Your task to perform on an android device: find snoozed emails in the gmail app Image 0: 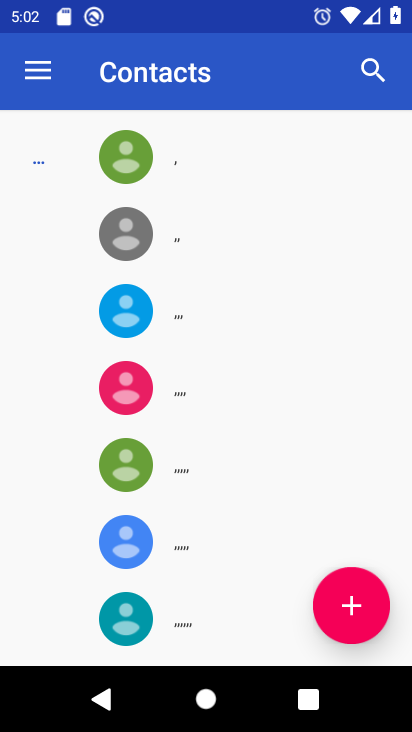
Step 0: press home button
Your task to perform on an android device: find snoozed emails in the gmail app Image 1: 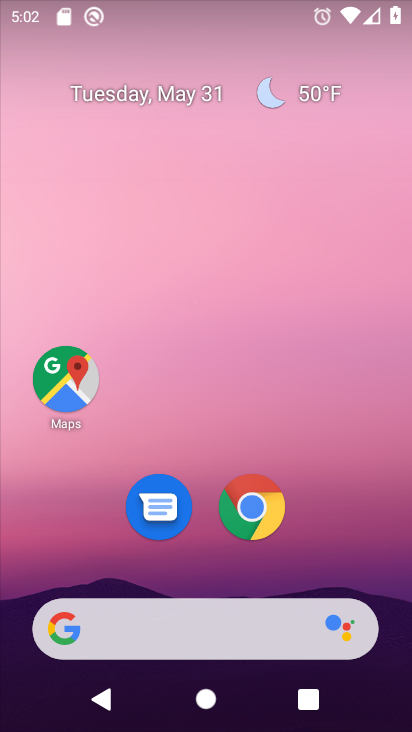
Step 1: drag from (320, 495) to (245, 45)
Your task to perform on an android device: find snoozed emails in the gmail app Image 2: 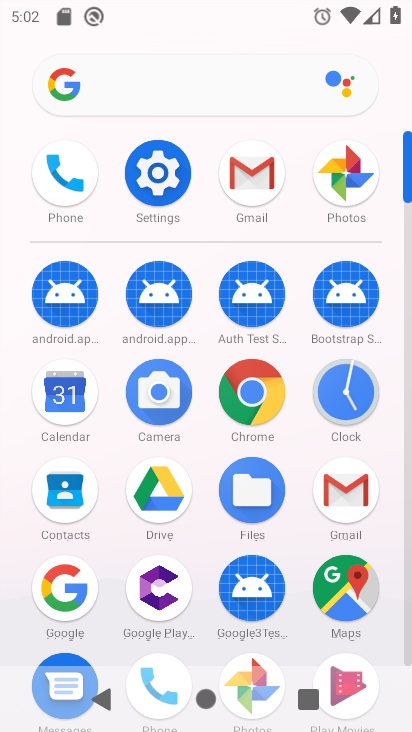
Step 2: click (249, 175)
Your task to perform on an android device: find snoozed emails in the gmail app Image 3: 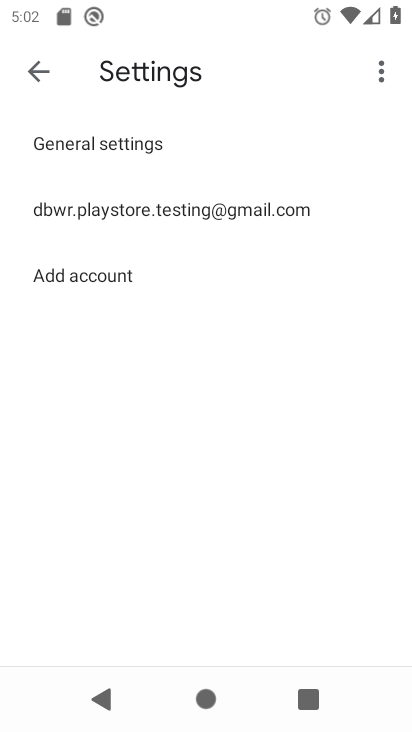
Step 3: click (36, 71)
Your task to perform on an android device: find snoozed emails in the gmail app Image 4: 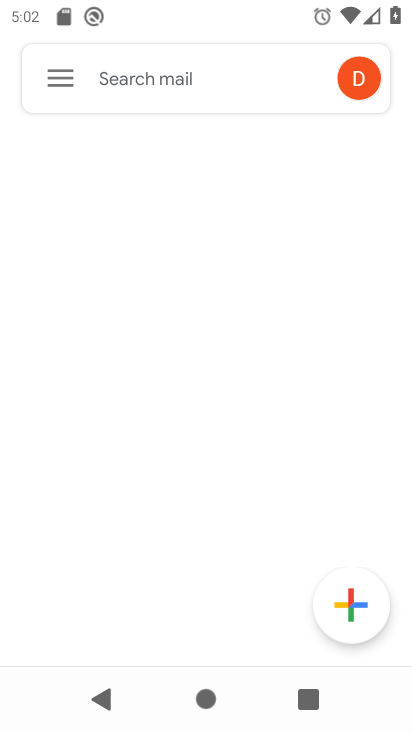
Step 4: click (57, 70)
Your task to perform on an android device: find snoozed emails in the gmail app Image 5: 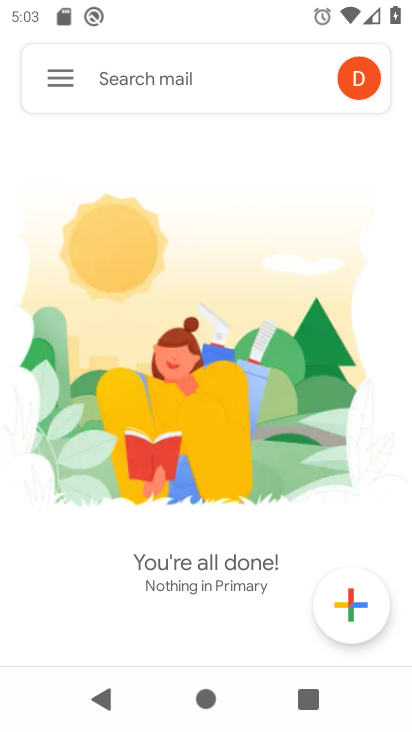
Step 5: click (51, 64)
Your task to perform on an android device: find snoozed emails in the gmail app Image 6: 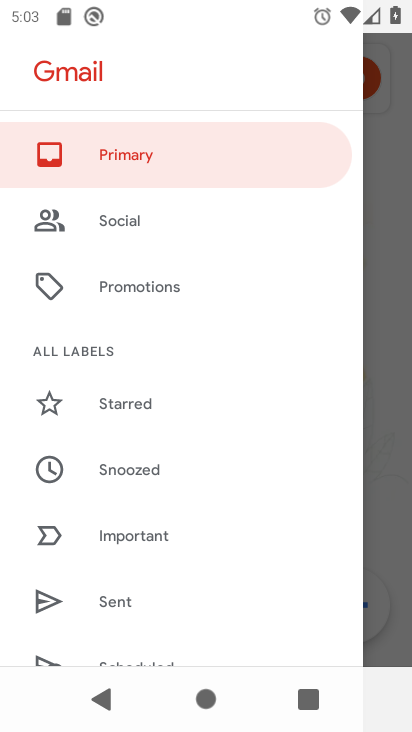
Step 6: click (193, 463)
Your task to perform on an android device: find snoozed emails in the gmail app Image 7: 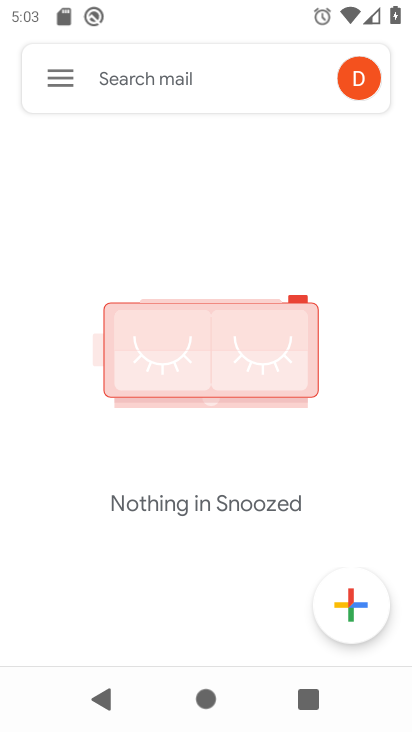
Step 7: task complete